Your task to perform on an android device: turn pop-ups off in chrome Image 0: 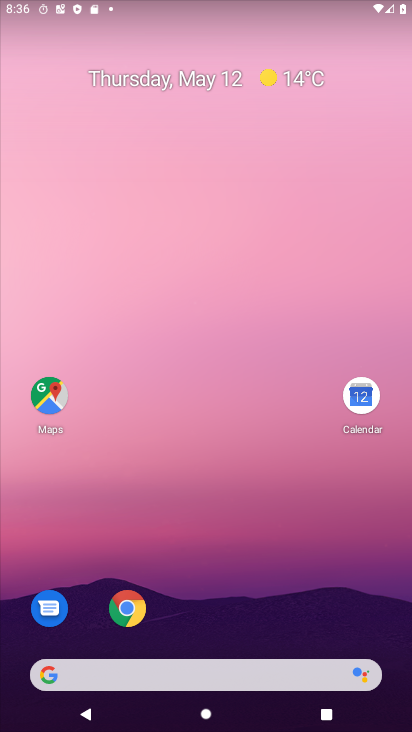
Step 0: click (122, 617)
Your task to perform on an android device: turn pop-ups off in chrome Image 1: 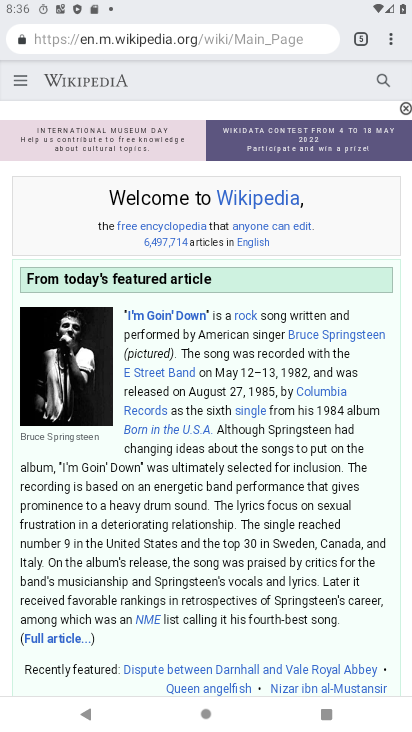
Step 1: click (393, 38)
Your task to perform on an android device: turn pop-ups off in chrome Image 2: 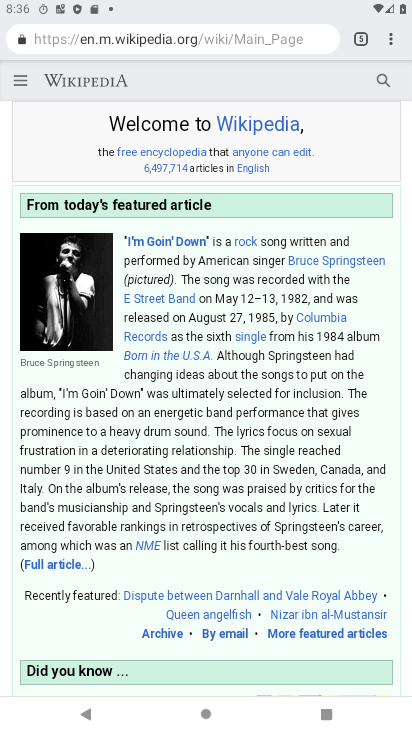
Step 2: click (381, 37)
Your task to perform on an android device: turn pop-ups off in chrome Image 3: 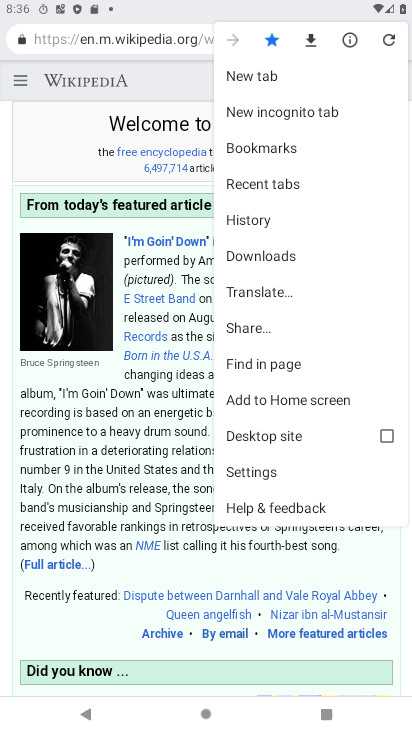
Step 3: click (336, 472)
Your task to perform on an android device: turn pop-ups off in chrome Image 4: 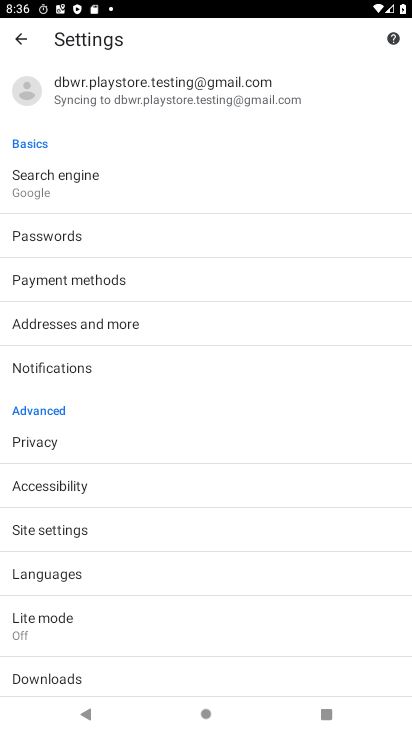
Step 4: drag from (191, 570) to (134, 186)
Your task to perform on an android device: turn pop-ups off in chrome Image 5: 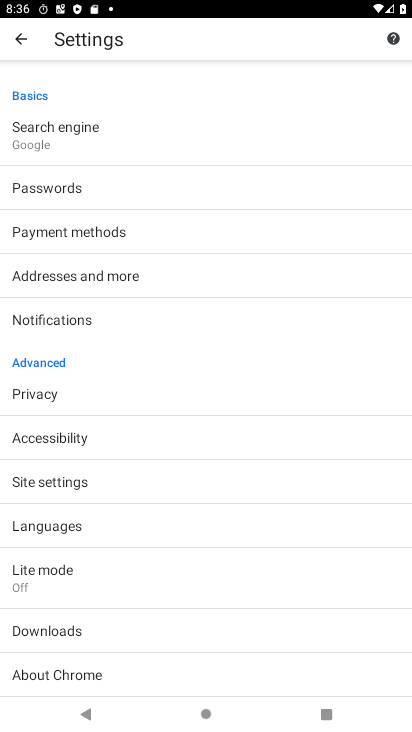
Step 5: click (110, 474)
Your task to perform on an android device: turn pop-ups off in chrome Image 6: 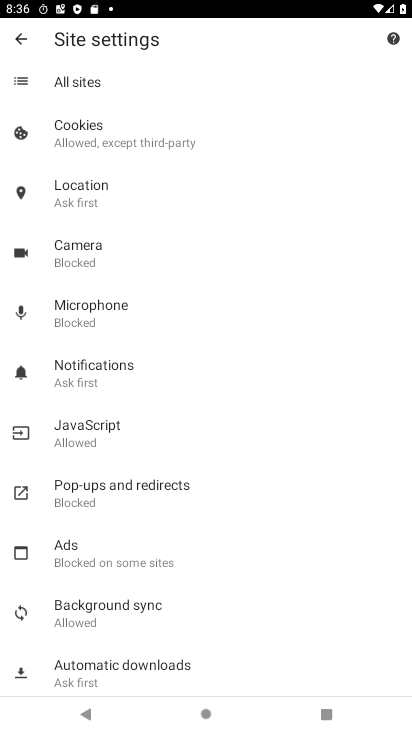
Step 6: drag from (194, 580) to (88, 212)
Your task to perform on an android device: turn pop-ups off in chrome Image 7: 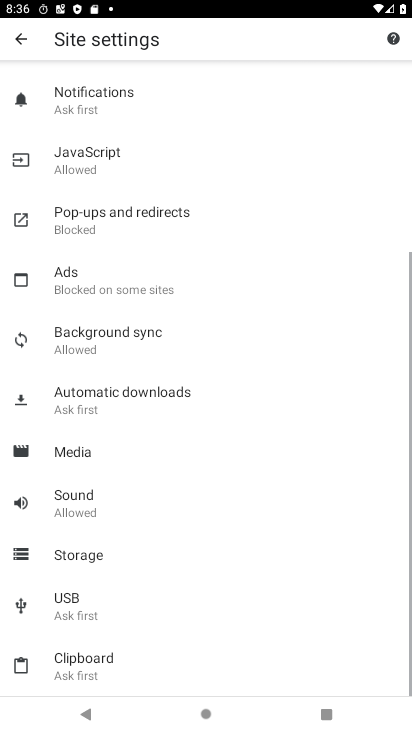
Step 7: drag from (253, 558) to (225, 167)
Your task to perform on an android device: turn pop-ups off in chrome Image 8: 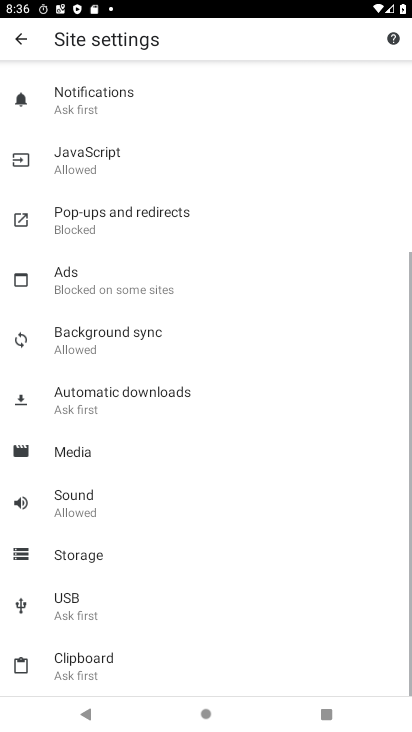
Step 8: drag from (238, 139) to (240, 567)
Your task to perform on an android device: turn pop-ups off in chrome Image 9: 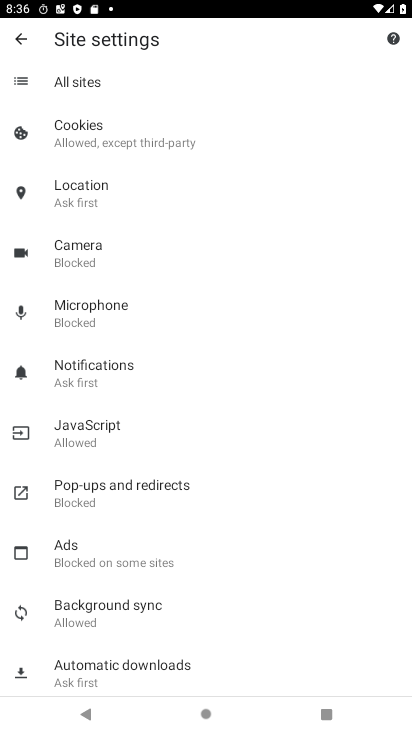
Step 9: click (143, 486)
Your task to perform on an android device: turn pop-ups off in chrome Image 10: 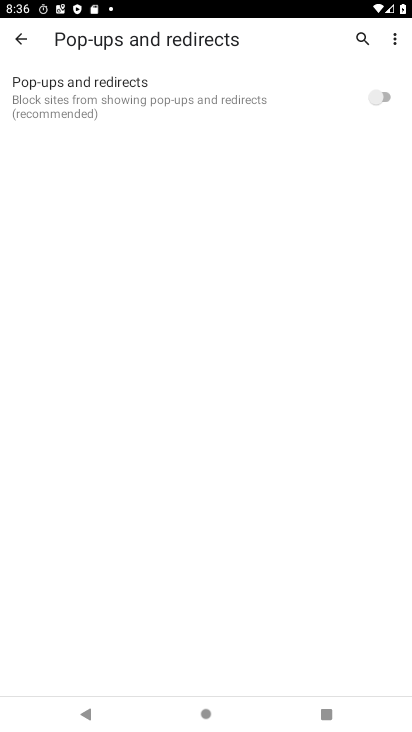
Step 10: task complete